Your task to perform on an android device: allow cookies in the chrome app Image 0: 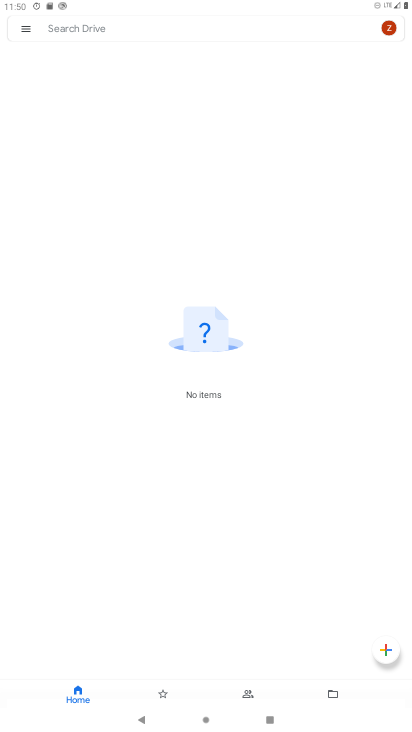
Step 0: press home button
Your task to perform on an android device: allow cookies in the chrome app Image 1: 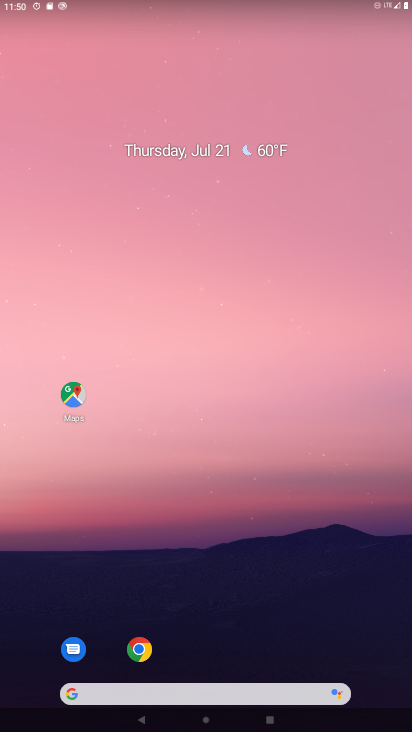
Step 1: click (135, 652)
Your task to perform on an android device: allow cookies in the chrome app Image 2: 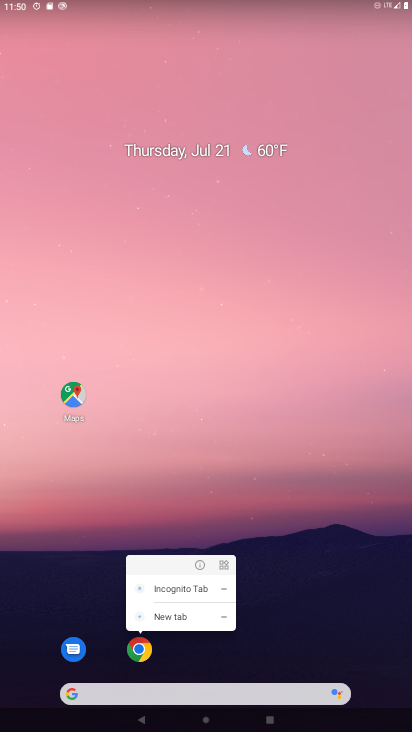
Step 2: click (135, 652)
Your task to perform on an android device: allow cookies in the chrome app Image 3: 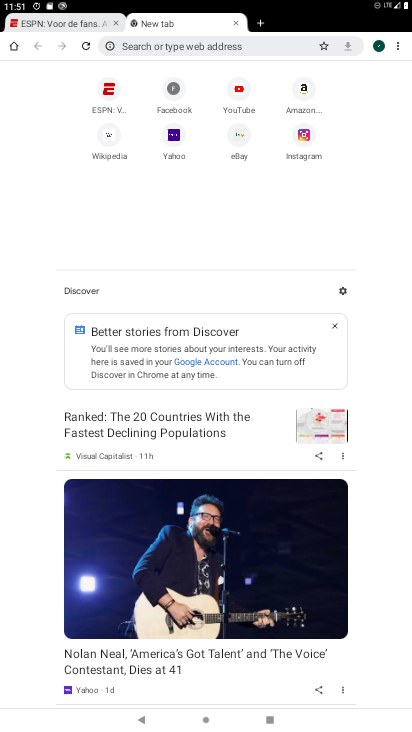
Step 3: click (396, 45)
Your task to perform on an android device: allow cookies in the chrome app Image 4: 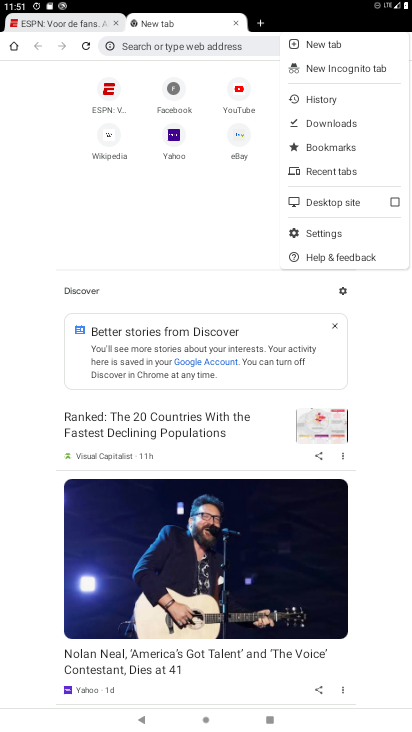
Step 4: click (312, 231)
Your task to perform on an android device: allow cookies in the chrome app Image 5: 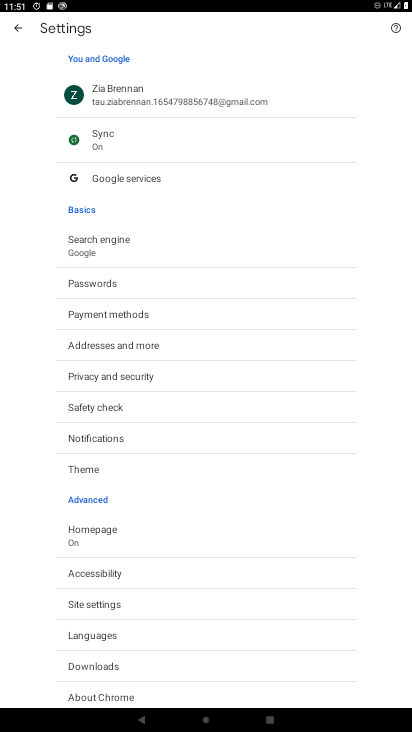
Step 5: drag from (173, 647) to (182, 361)
Your task to perform on an android device: allow cookies in the chrome app Image 6: 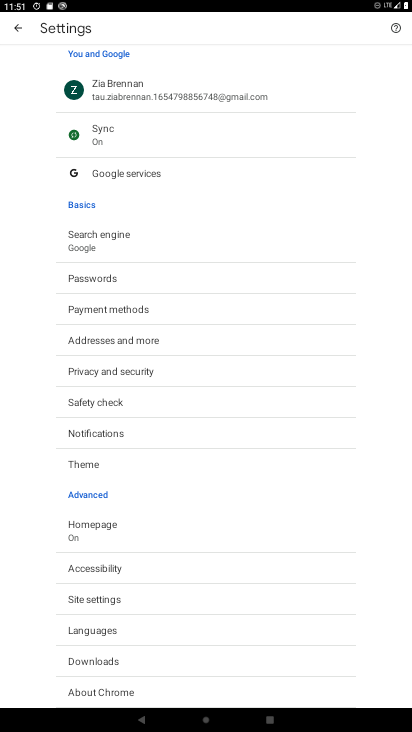
Step 6: click (89, 596)
Your task to perform on an android device: allow cookies in the chrome app Image 7: 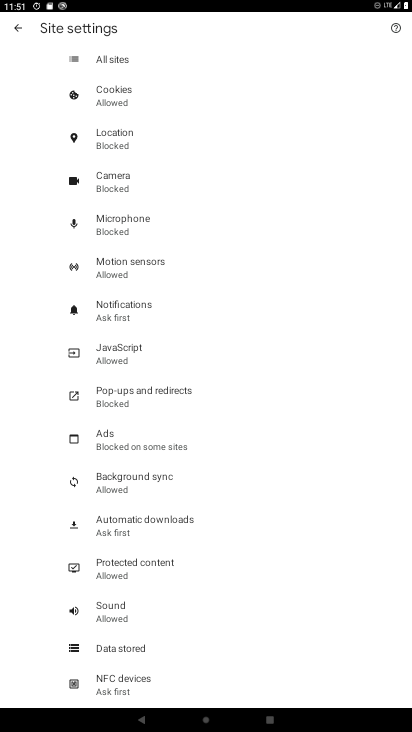
Step 7: click (115, 90)
Your task to perform on an android device: allow cookies in the chrome app Image 8: 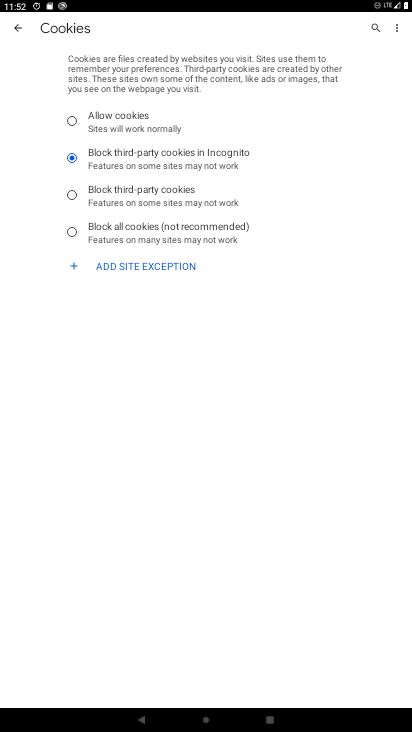
Step 8: drag from (191, 139) to (181, 320)
Your task to perform on an android device: allow cookies in the chrome app Image 9: 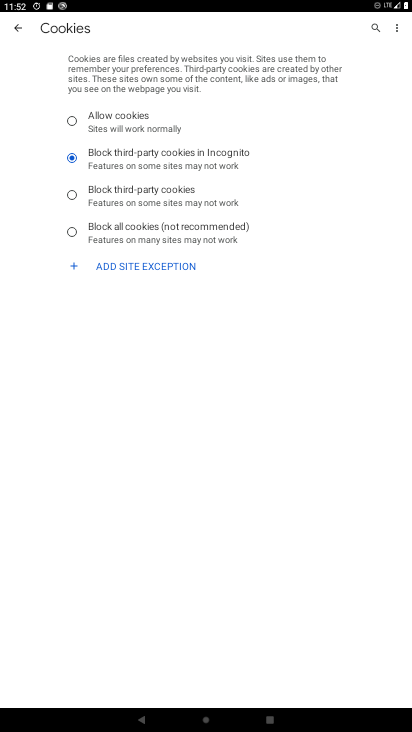
Step 9: click (66, 121)
Your task to perform on an android device: allow cookies in the chrome app Image 10: 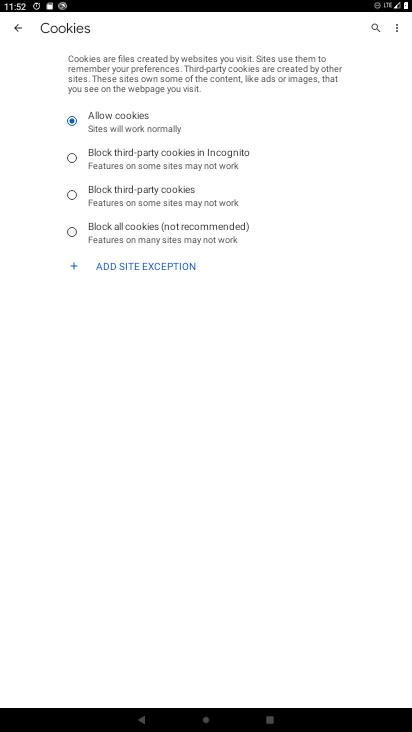
Step 10: task complete